Your task to perform on an android device: Open network settings Image 0: 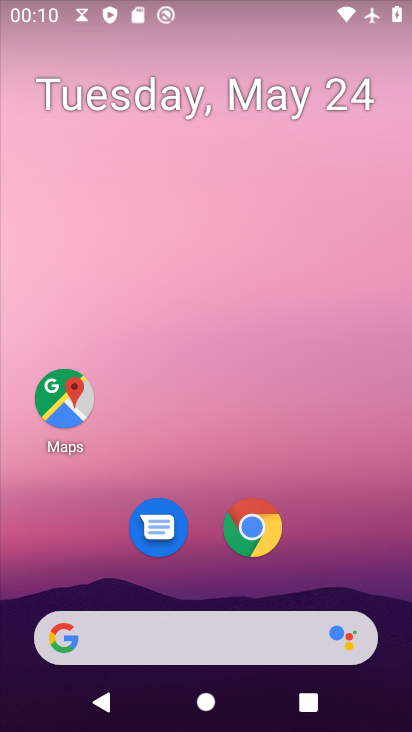
Step 0: drag from (166, 634) to (294, 110)
Your task to perform on an android device: Open network settings Image 1: 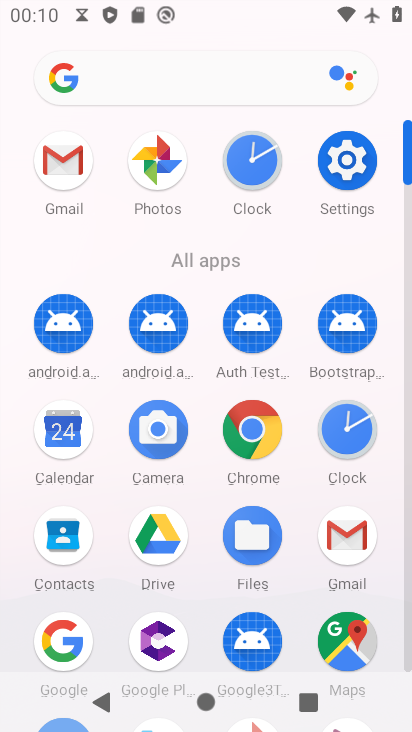
Step 1: click (336, 166)
Your task to perform on an android device: Open network settings Image 2: 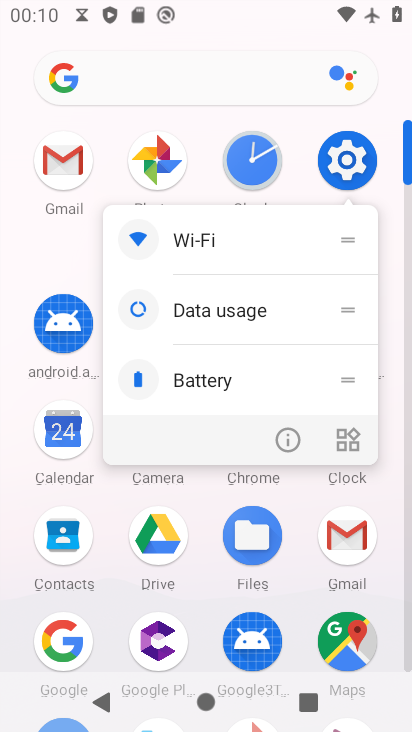
Step 2: click (339, 166)
Your task to perform on an android device: Open network settings Image 3: 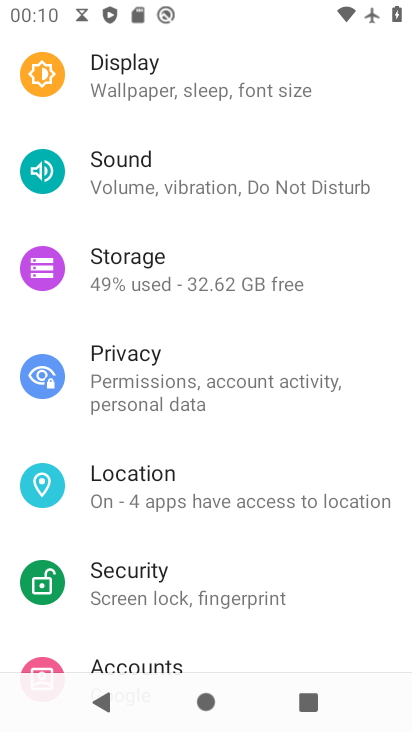
Step 3: drag from (335, 119) to (212, 651)
Your task to perform on an android device: Open network settings Image 4: 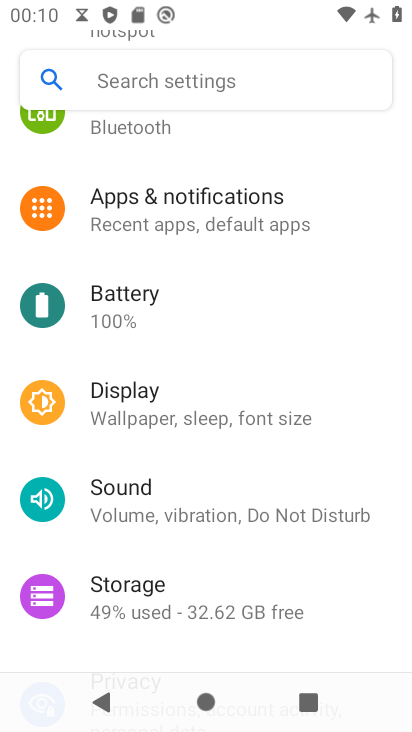
Step 4: drag from (303, 278) to (262, 640)
Your task to perform on an android device: Open network settings Image 5: 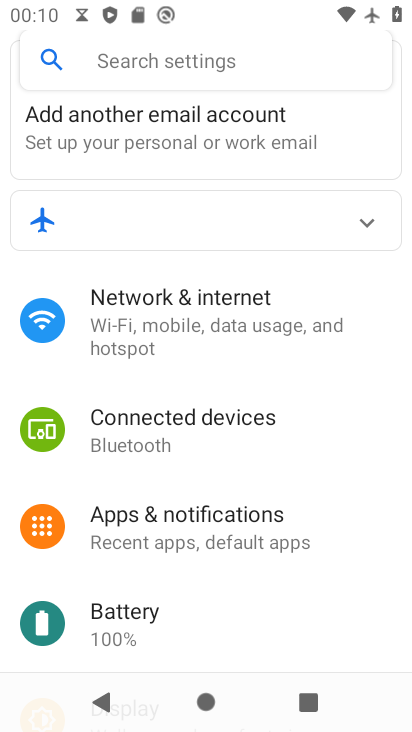
Step 5: click (203, 321)
Your task to perform on an android device: Open network settings Image 6: 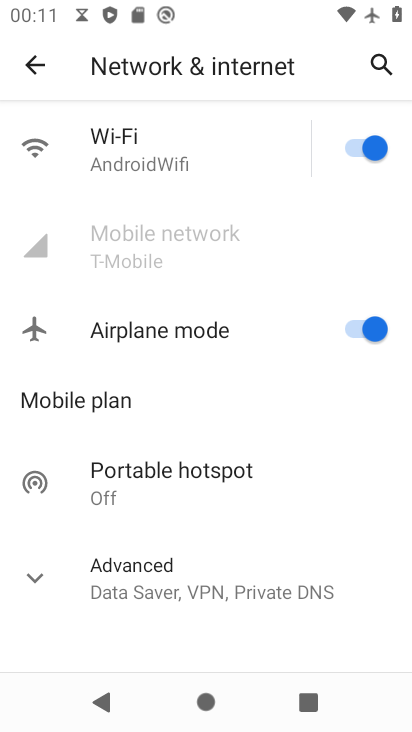
Step 6: click (176, 159)
Your task to perform on an android device: Open network settings Image 7: 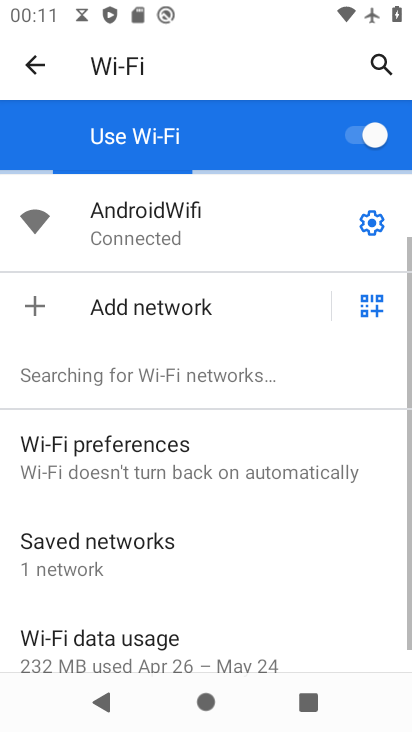
Step 7: task complete